Your task to perform on an android device: Go to accessibility settings Image 0: 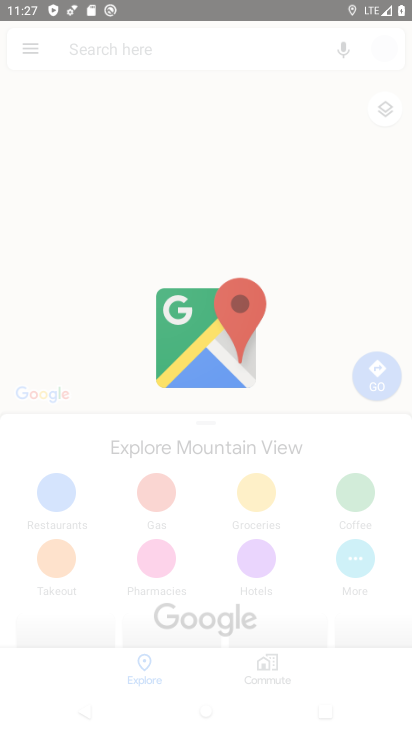
Step 0: drag from (251, 690) to (384, 388)
Your task to perform on an android device: Go to accessibility settings Image 1: 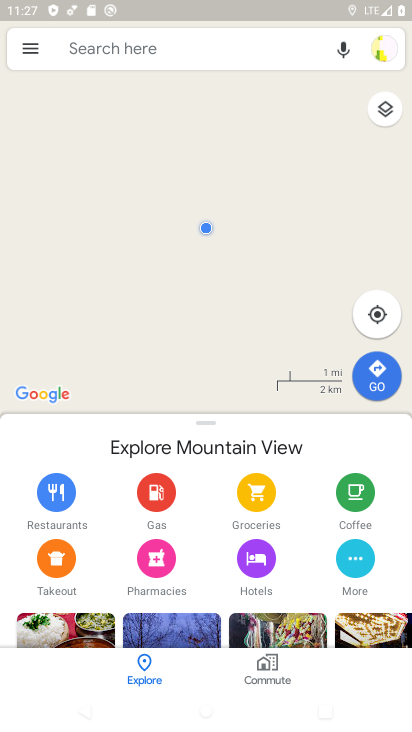
Step 1: press home button
Your task to perform on an android device: Go to accessibility settings Image 2: 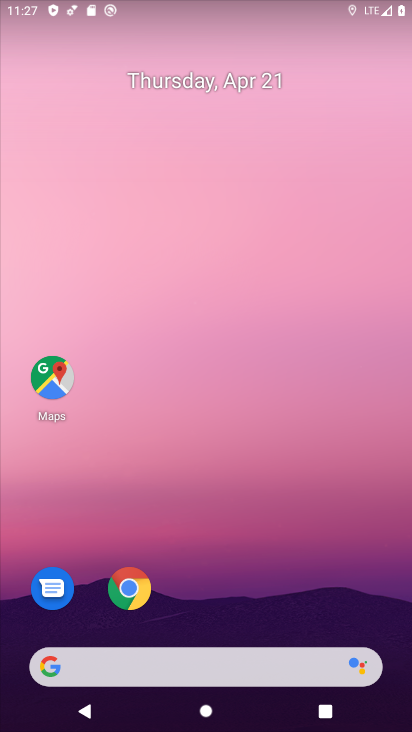
Step 2: drag from (258, 689) to (291, 115)
Your task to perform on an android device: Go to accessibility settings Image 3: 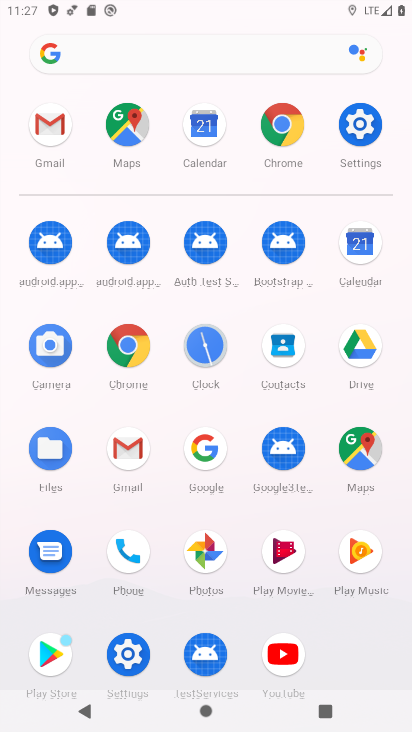
Step 3: click (350, 122)
Your task to perform on an android device: Go to accessibility settings Image 4: 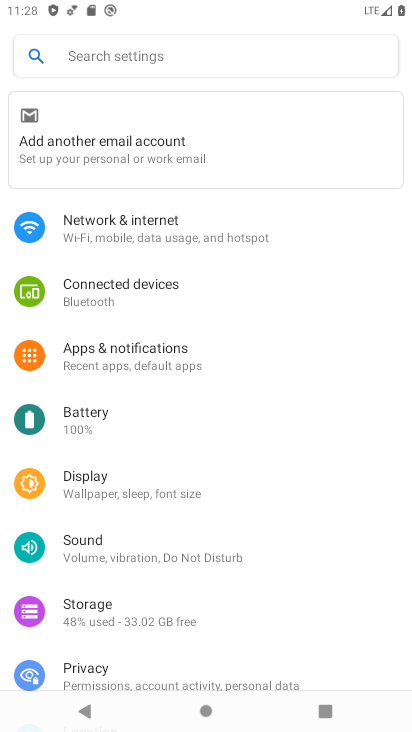
Step 4: click (165, 59)
Your task to perform on an android device: Go to accessibility settings Image 5: 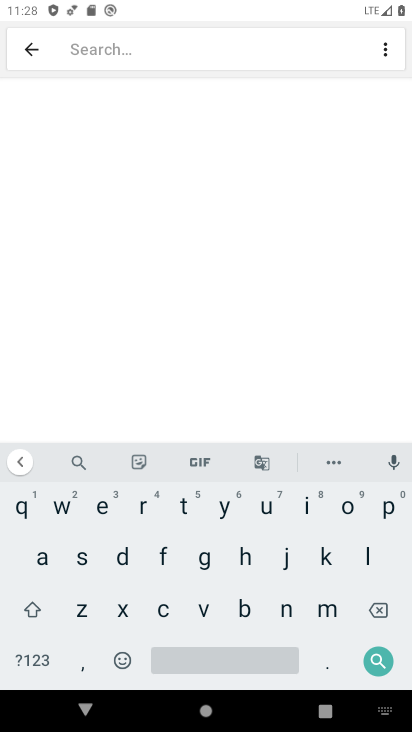
Step 5: click (160, 54)
Your task to perform on an android device: Go to accessibility settings Image 6: 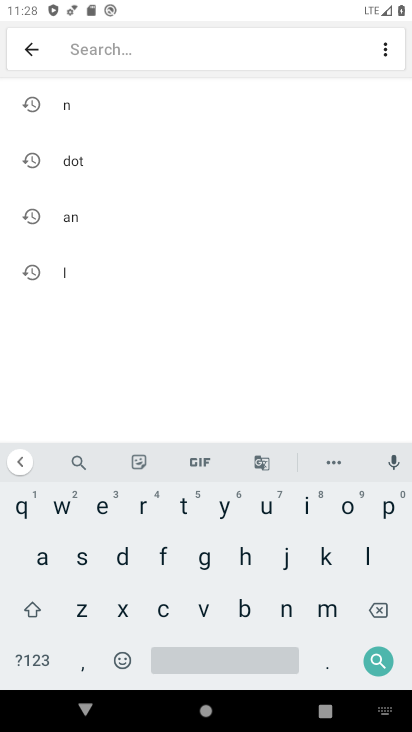
Step 6: click (38, 557)
Your task to perform on an android device: Go to accessibility settings Image 7: 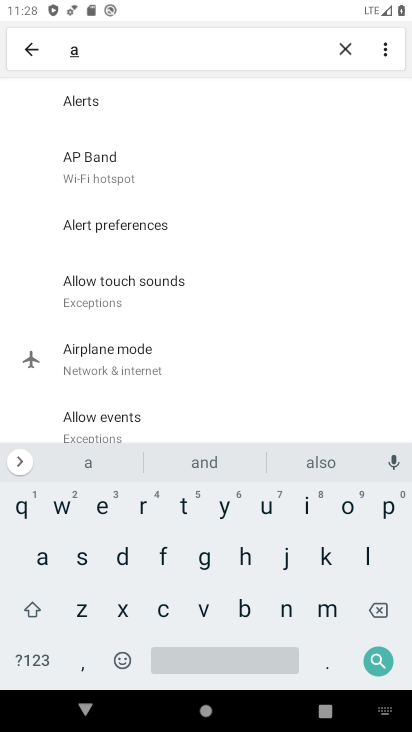
Step 7: click (157, 609)
Your task to perform on an android device: Go to accessibility settings Image 8: 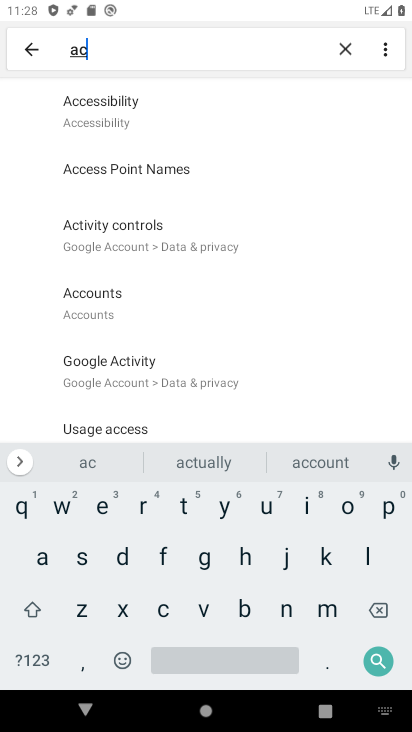
Step 8: click (181, 110)
Your task to perform on an android device: Go to accessibility settings Image 9: 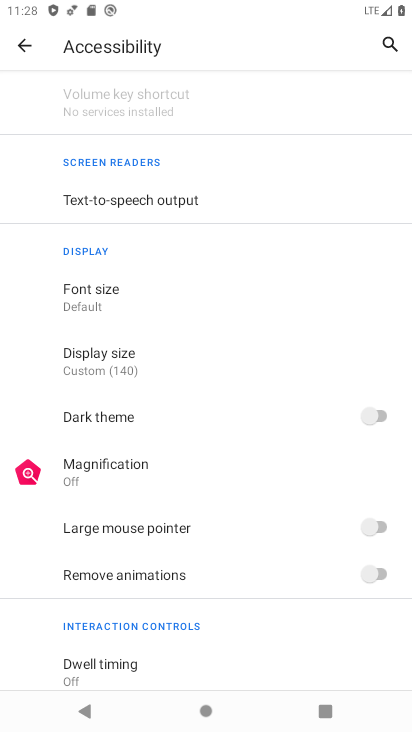
Step 9: task complete